Your task to perform on an android device: turn notification dots on Image 0: 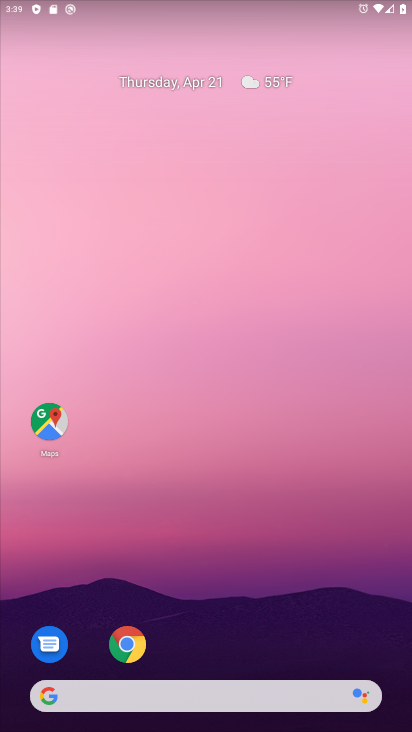
Step 0: drag from (230, 667) to (119, 44)
Your task to perform on an android device: turn notification dots on Image 1: 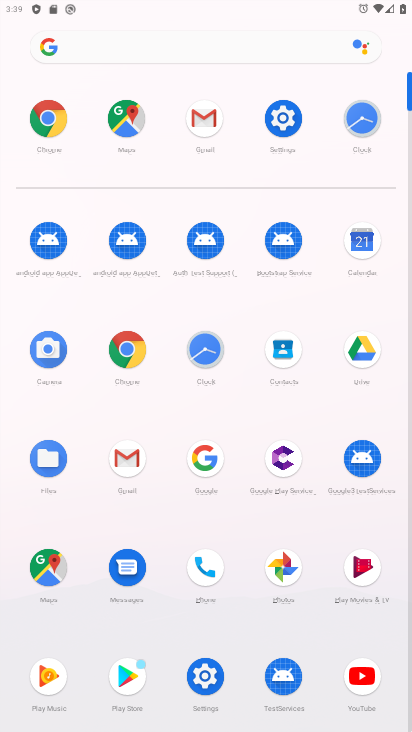
Step 1: click (278, 118)
Your task to perform on an android device: turn notification dots on Image 2: 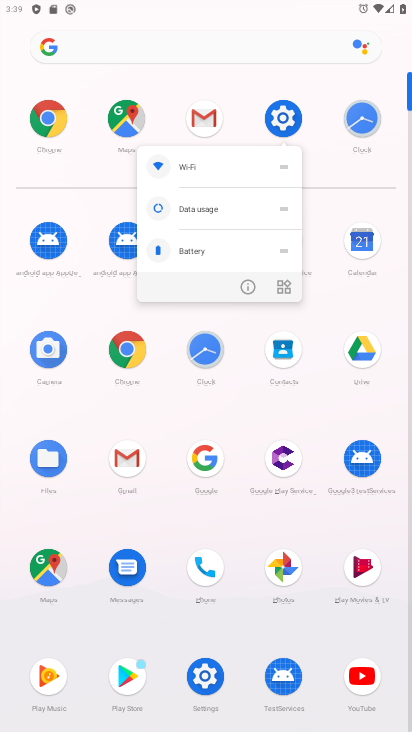
Step 2: click (285, 122)
Your task to perform on an android device: turn notification dots on Image 3: 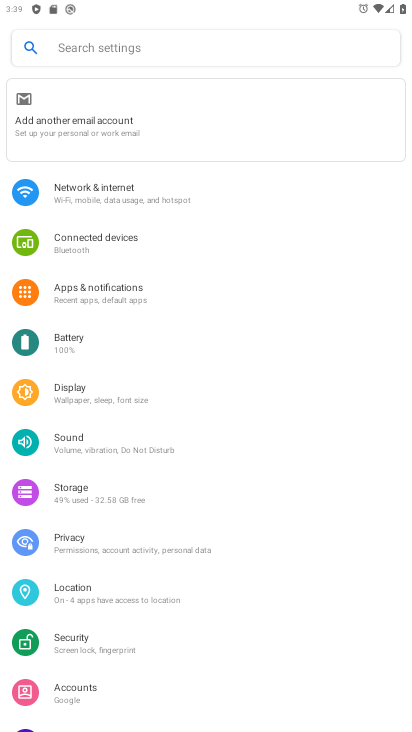
Step 3: click (79, 294)
Your task to perform on an android device: turn notification dots on Image 4: 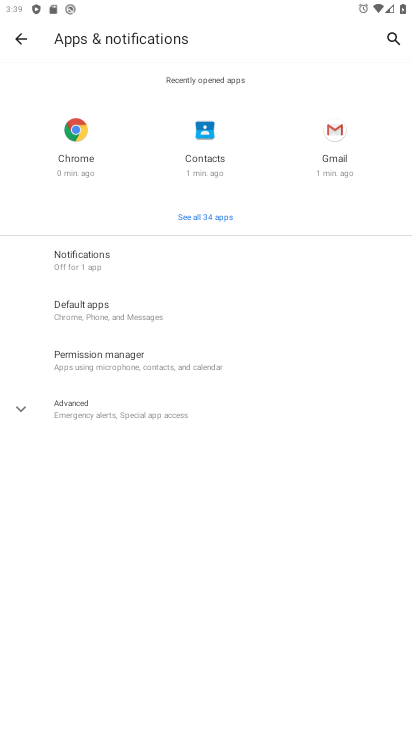
Step 4: click (81, 279)
Your task to perform on an android device: turn notification dots on Image 5: 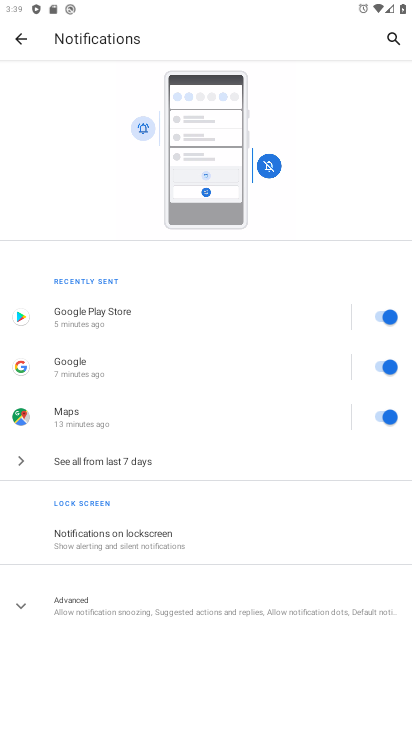
Step 5: drag from (94, 467) to (88, 208)
Your task to perform on an android device: turn notification dots on Image 6: 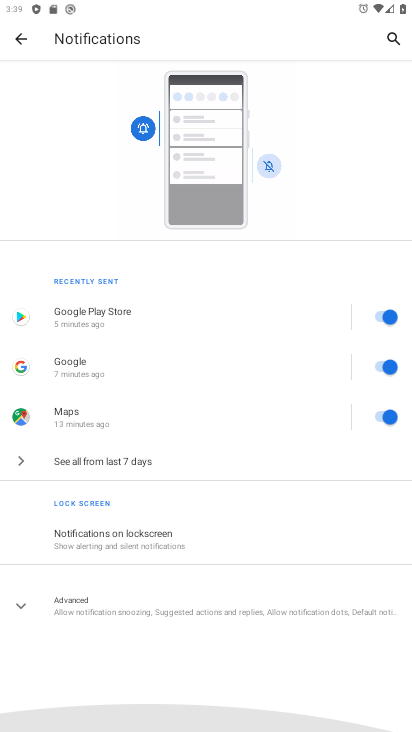
Step 6: click (94, 602)
Your task to perform on an android device: turn notification dots on Image 7: 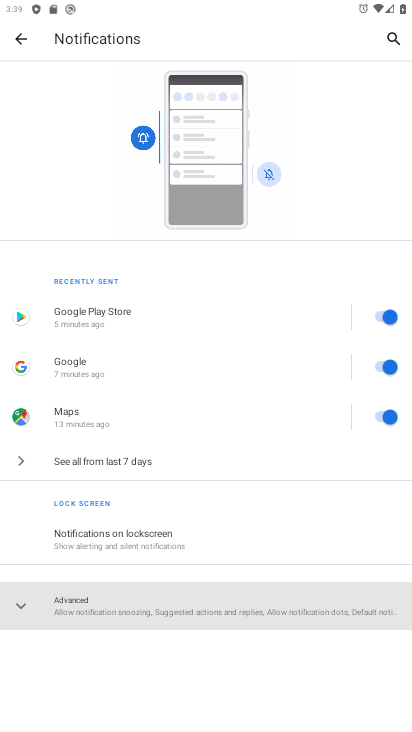
Step 7: task complete